Your task to perform on an android device: read, delete, or share a saved page in the chrome app Image 0: 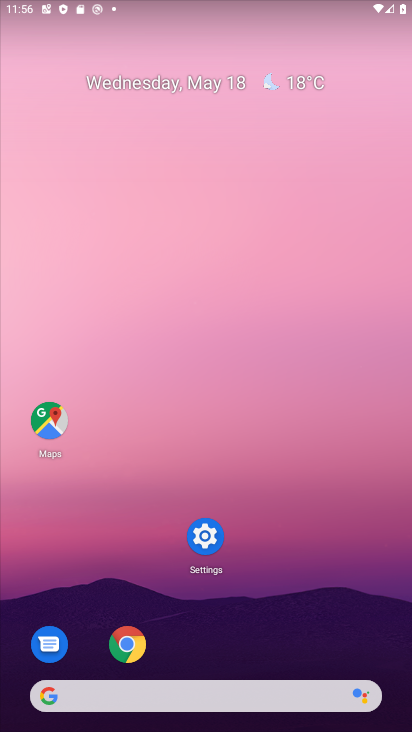
Step 0: drag from (340, 641) to (295, 143)
Your task to perform on an android device: read, delete, or share a saved page in the chrome app Image 1: 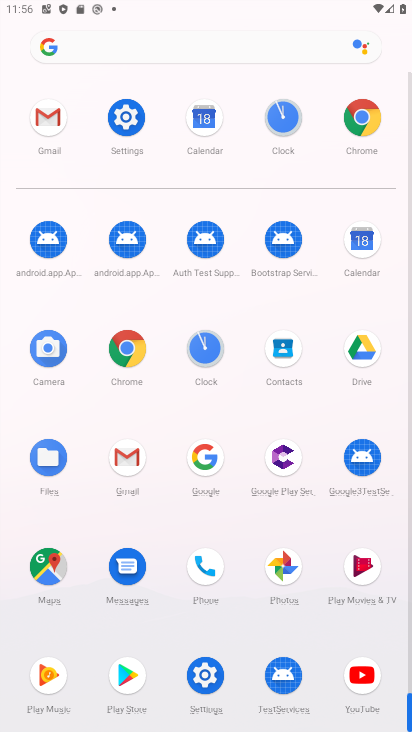
Step 1: click (125, 349)
Your task to perform on an android device: read, delete, or share a saved page in the chrome app Image 2: 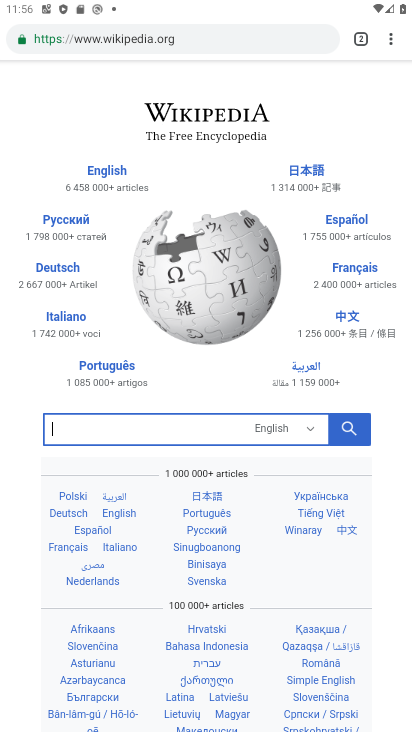
Step 2: task complete